Your task to perform on an android device: Open calendar and show me the first week of next month Image 0: 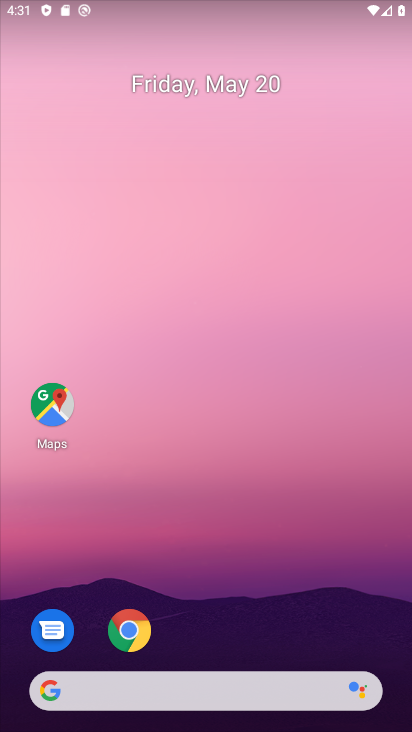
Step 0: drag from (236, 579) to (244, 62)
Your task to perform on an android device: Open calendar and show me the first week of next month Image 1: 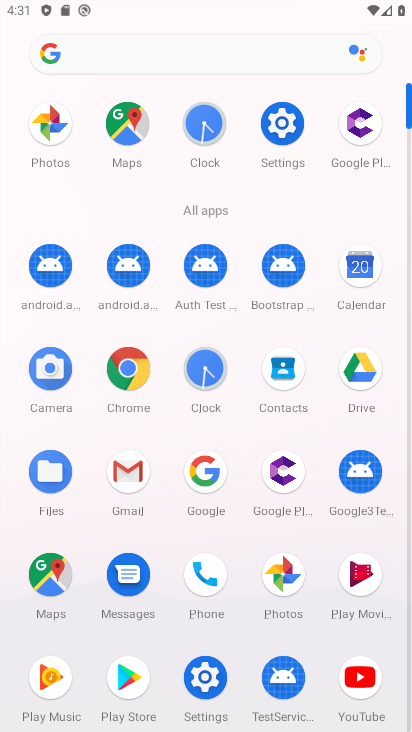
Step 1: click (365, 270)
Your task to perform on an android device: Open calendar and show me the first week of next month Image 2: 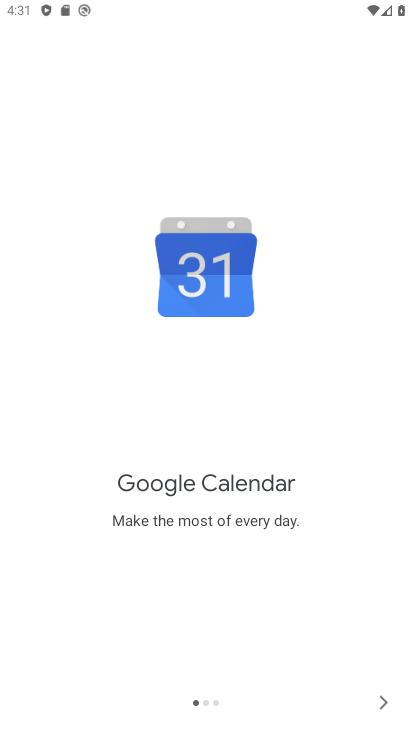
Step 2: click (379, 703)
Your task to perform on an android device: Open calendar and show me the first week of next month Image 3: 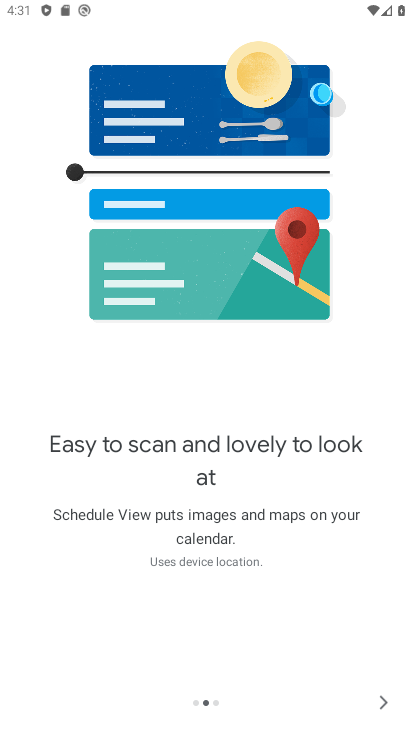
Step 3: click (379, 703)
Your task to perform on an android device: Open calendar and show me the first week of next month Image 4: 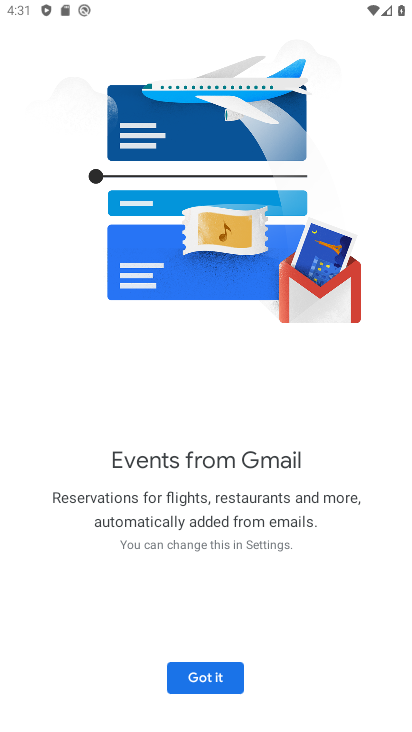
Step 4: click (227, 681)
Your task to perform on an android device: Open calendar and show me the first week of next month Image 5: 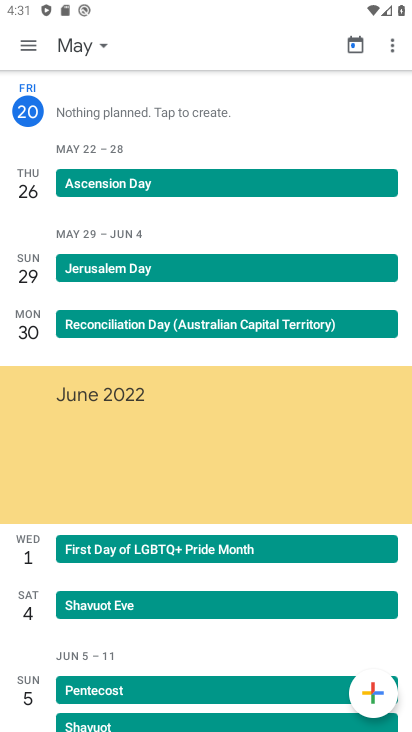
Step 5: click (28, 40)
Your task to perform on an android device: Open calendar and show me the first week of next month Image 6: 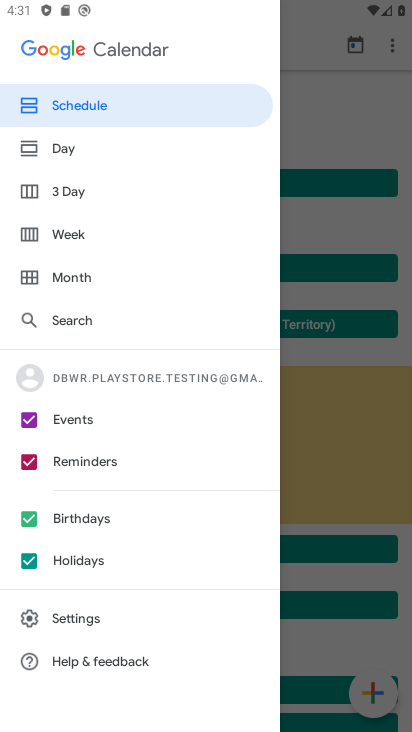
Step 6: click (29, 229)
Your task to perform on an android device: Open calendar and show me the first week of next month Image 7: 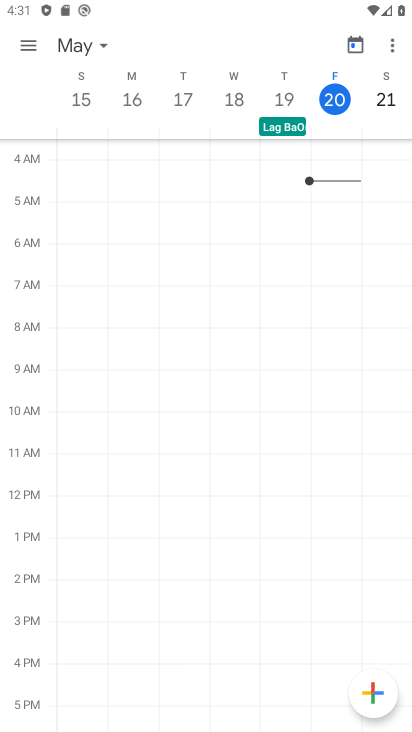
Step 7: task complete